Your task to perform on an android device: What's on my calendar today? Image 0: 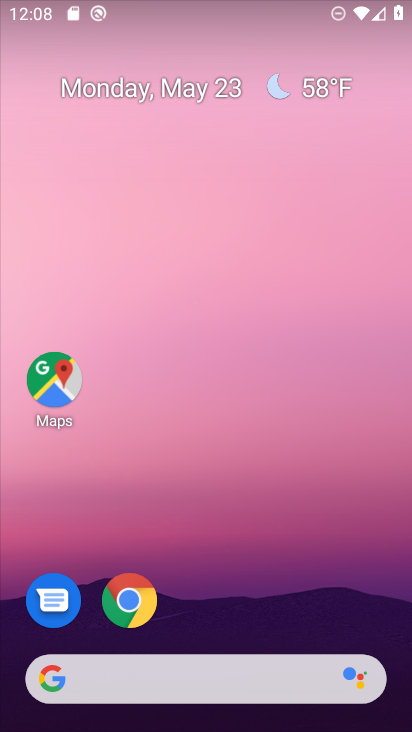
Step 0: drag from (229, 585) to (158, 4)
Your task to perform on an android device: What's on my calendar today? Image 1: 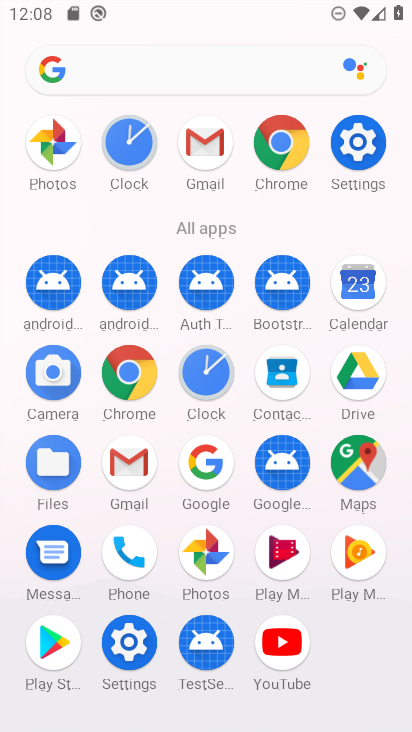
Step 1: click (341, 288)
Your task to perform on an android device: What's on my calendar today? Image 2: 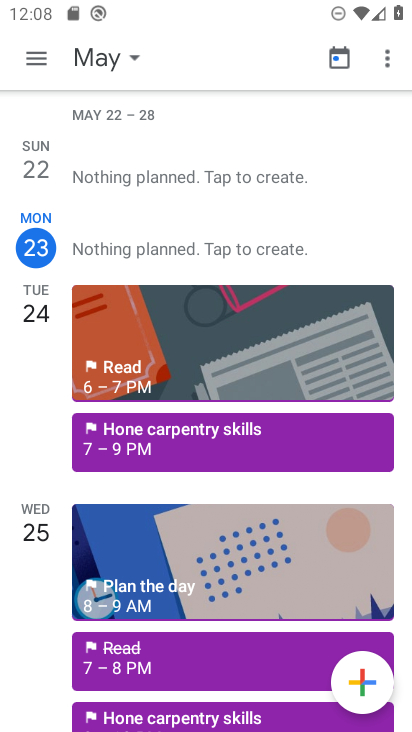
Step 2: click (99, 57)
Your task to perform on an android device: What's on my calendar today? Image 3: 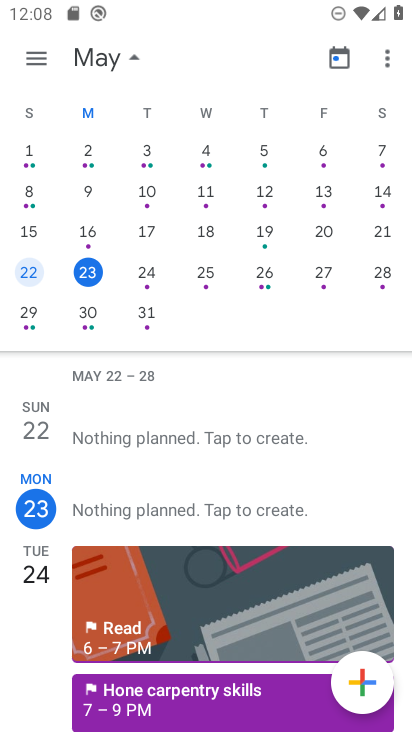
Step 3: task complete